Your task to perform on an android device: toggle location history Image 0: 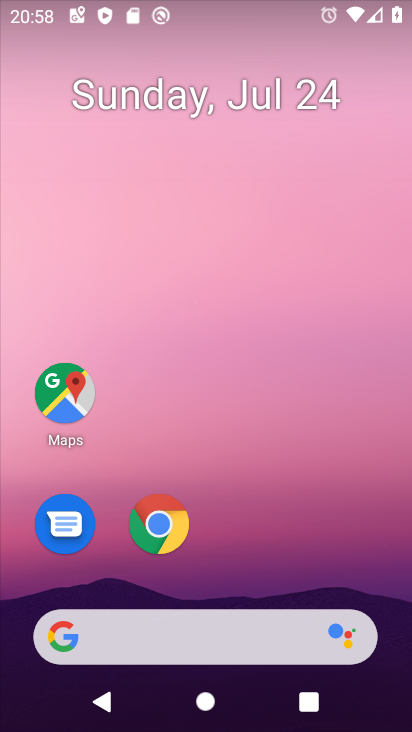
Step 0: drag from (282, 500) to (192, 110)
Your task to perform on an android device: toggle location history Image 1: 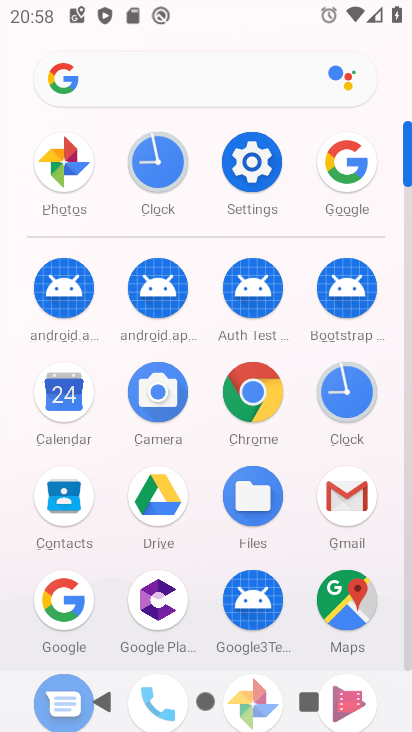
Step 1: click (257, 165)
Your task to perform on an android device: toggle location history Image 2: 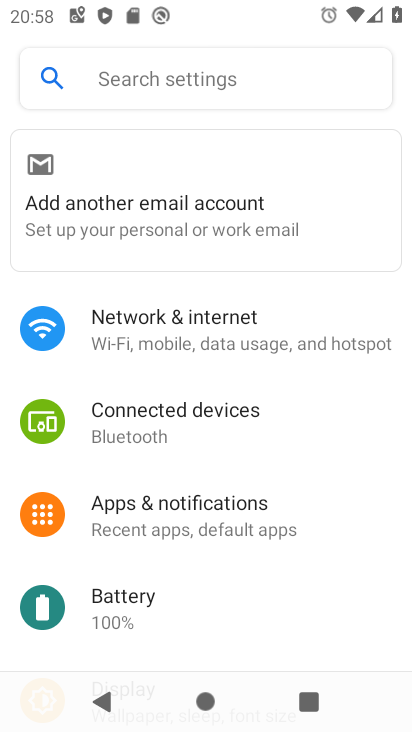
Step 2: drag from (250, 567) to (290, 241)
Your task to perform on an android device: toggle location history Image 3: 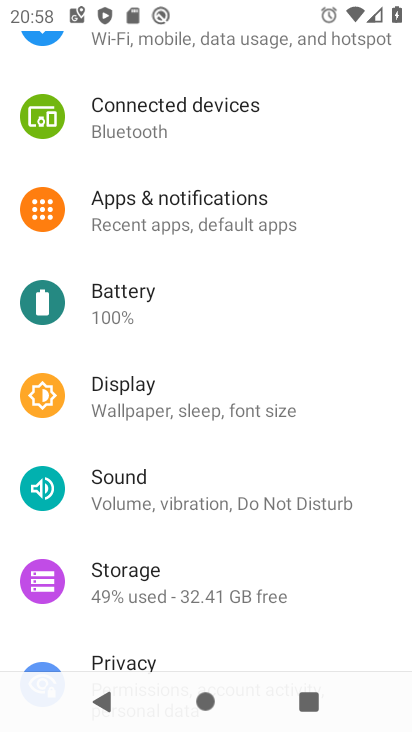
Step 3: drag from (240, 546) to (208, 160)
Your task to perform on an android device: toggle location history Image 4: 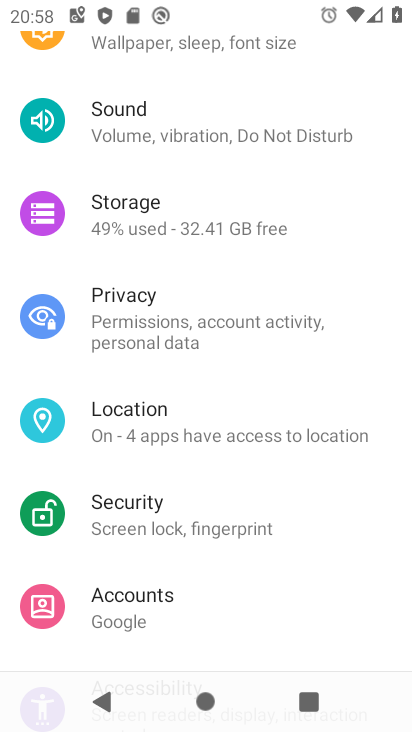
Step 4: click (223, 427)
Your task to perform on an android device: toggle location history Image 5: 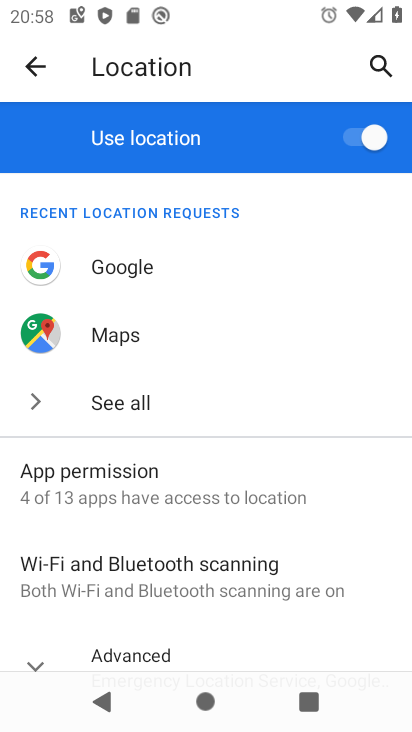
Step 5: drag from (272, 387) to (258, 210)
Your task to perform on an android device: toggle location history Image 6: 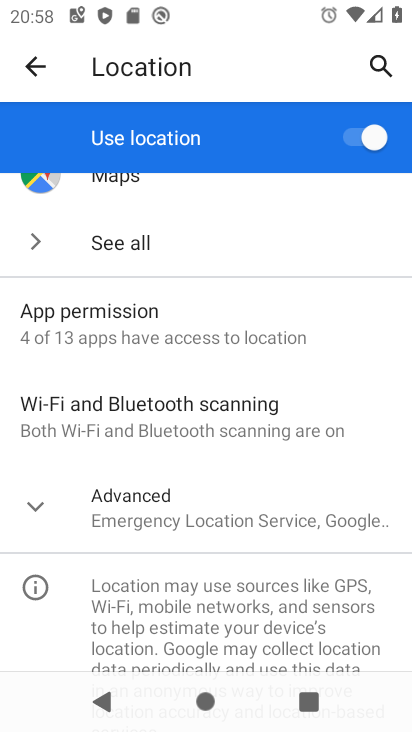
Step 6: click (35, 507)
Your task to perform on an android device: toggle location history Image 7: 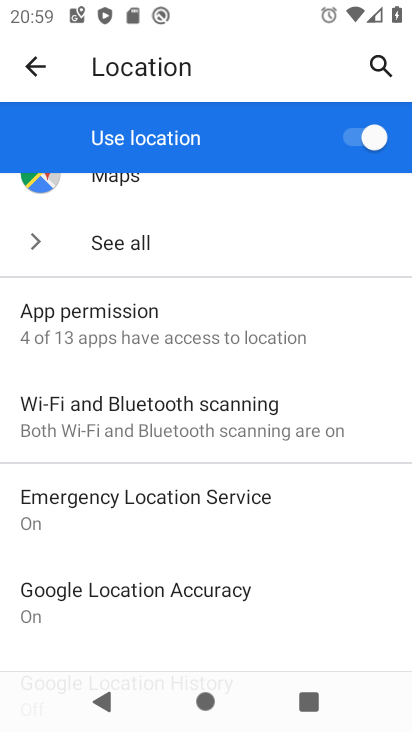
Step 7: drag from (303, 592) to (300, 279)
Your task to perform on an android device: toggle location history Image 8: 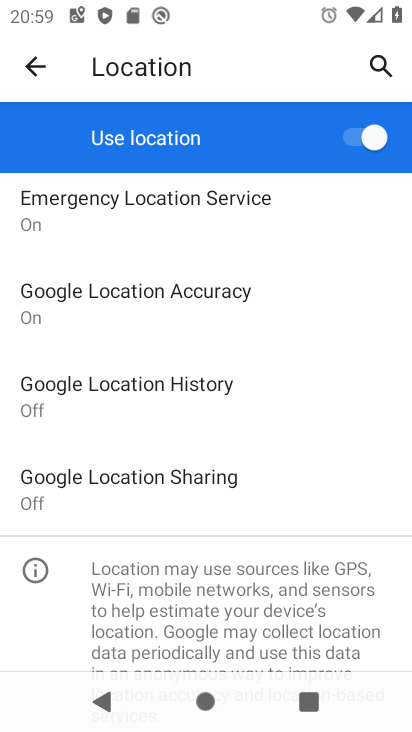
Step 8: click (203, 401)
Your task to perform on an android device: toggle location history Image 9: 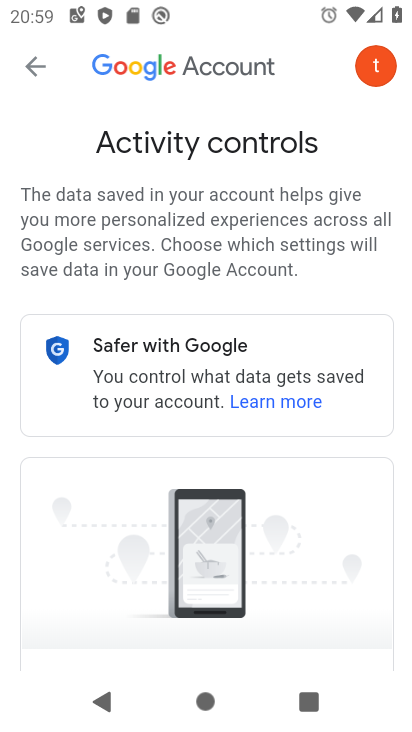
Step 9: drag from (319, 589) to (301, 138)
Your task to perform on an android device: toggle location history Image 10: 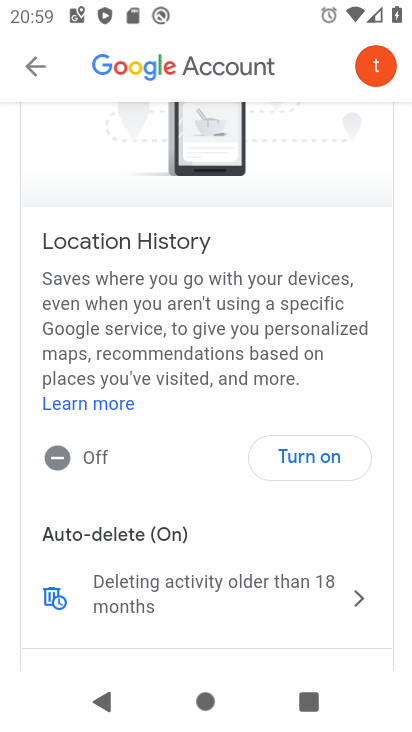
Step 10: click (320, 450)
Your task to perform on an android device: toggle location history Image 11: 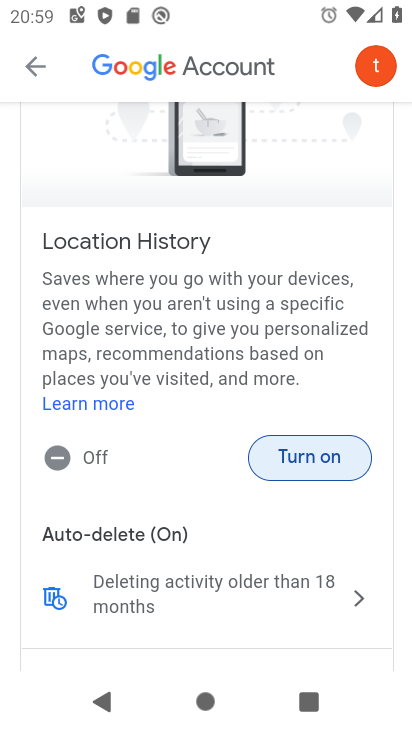
Step 11: click (320, 450)
Your task to perform on an android device: toggle location history Image 12: 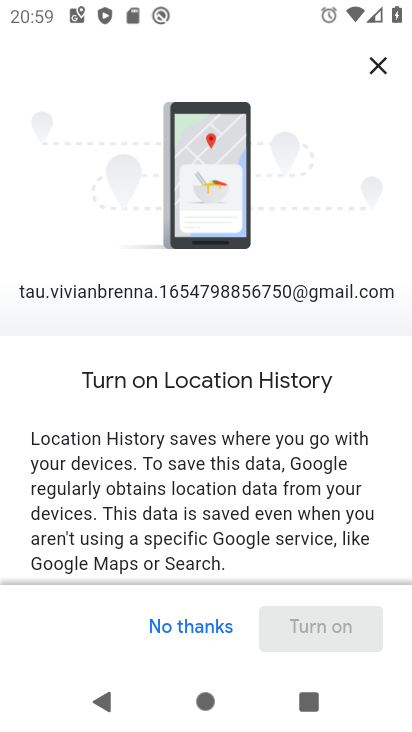
Step 12: drag from (287, 529) to (319, 12)
Your task to perform on an android device: toggle location history Image 13: 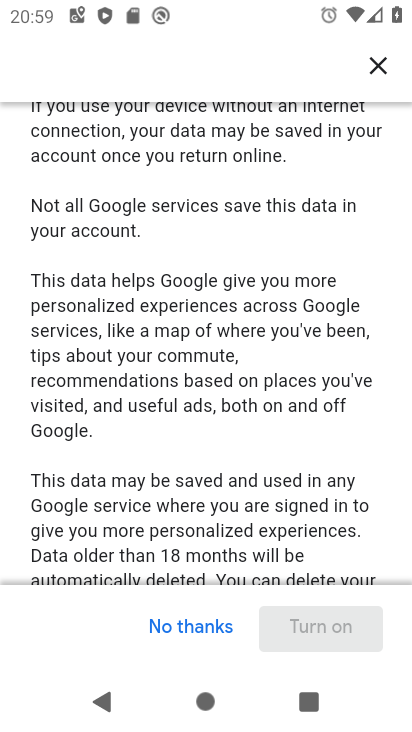
Step 13: drag from (250, 452) to (289, 15)
Your task to perform on an android device: toggle location history Image 14: 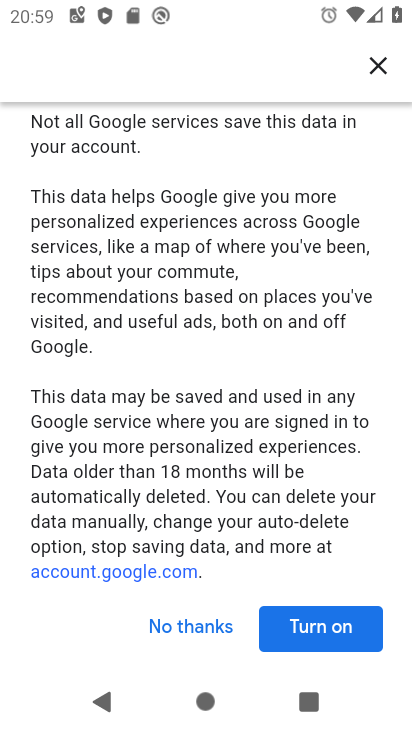
Step 14: click (353, 636)
Your task to perform on an android device: toggle location history Image 15: 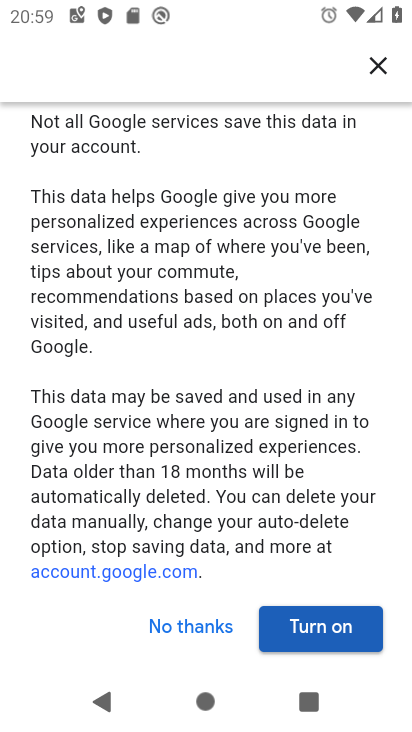
Step 15: click (356, 628)
Your task to perform on an android device: toggle location history Image 16: 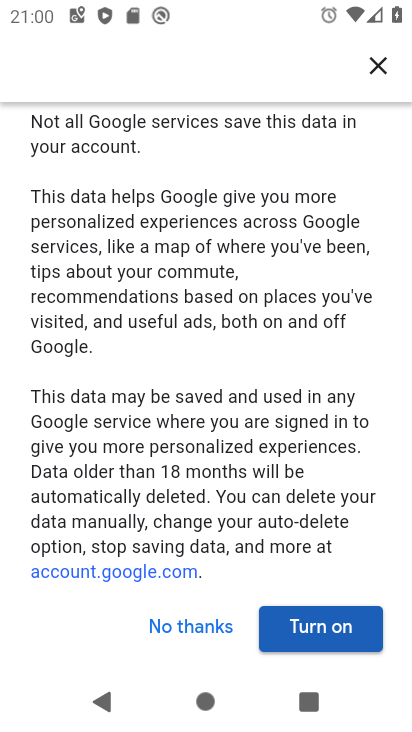
Step 16: click (333, 628)
Your task to perform on an android device: toggle location history Image 17: 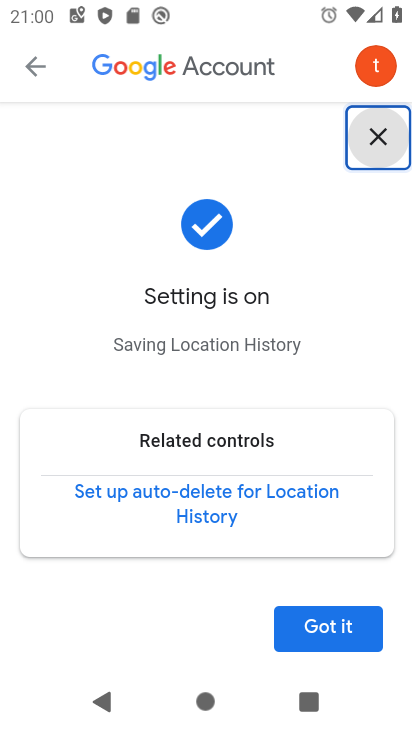
Step 17: click (345, 619)
Your task to perform on an android device: toggle location history Image 18: 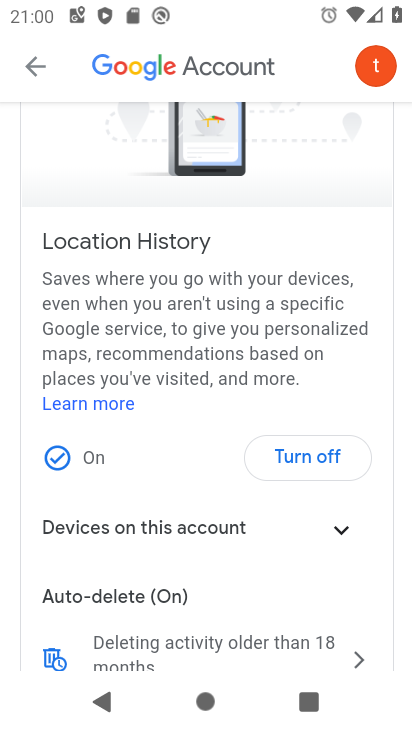
Step 18: task complete